Your task to perform on an android device: change the upload size in google photos Image 0: 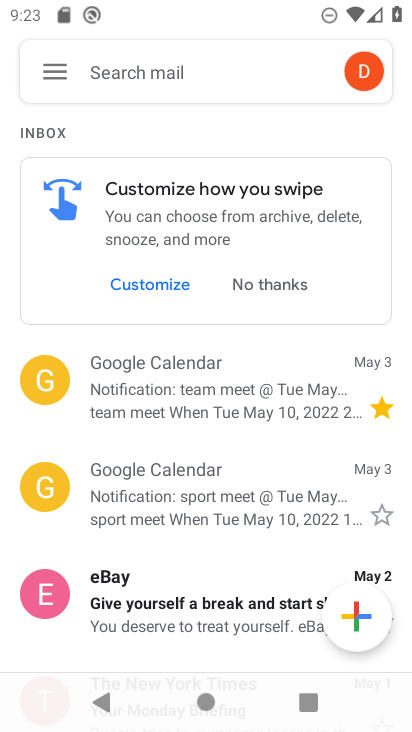
Step 0: press home button
Your task to perform on an android device: change the upload size in google photos Image 1: 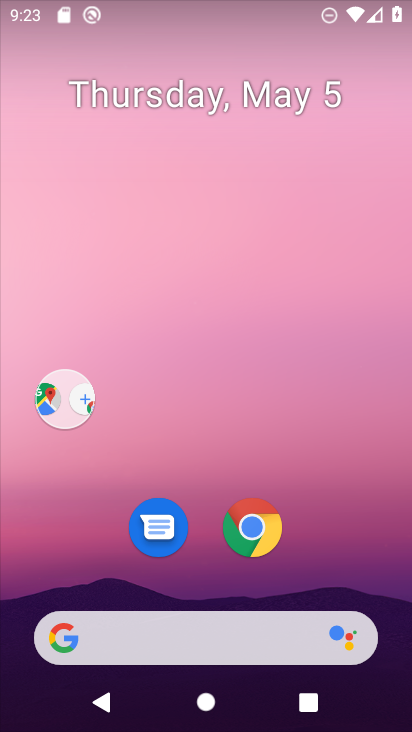
Step 1: drag from (339, 578) to (158, 0)
Your task to perform on an android device: change the upload size in google photos Image 2: 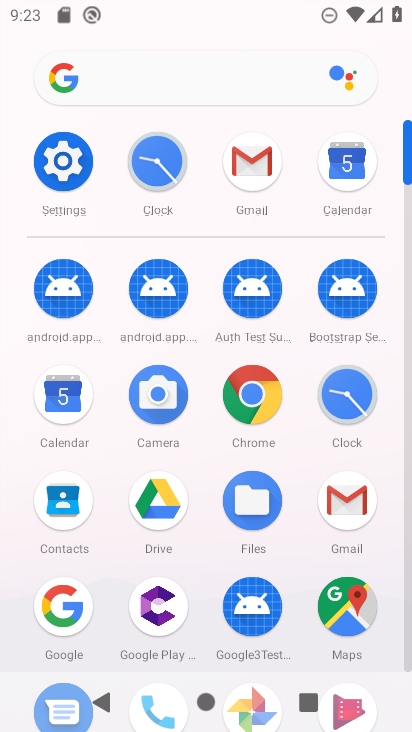
Step 2: click (236, 92)
Your task to perform on an android device: change the upload size in google photos Image 3: 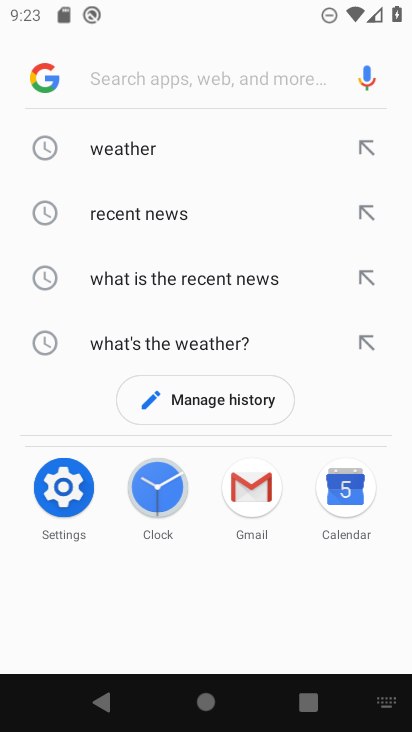
Step 3: drag from (272, 490) to (232, 60)
Your task to perform on an android device: change the upload size in google photos Image 4: 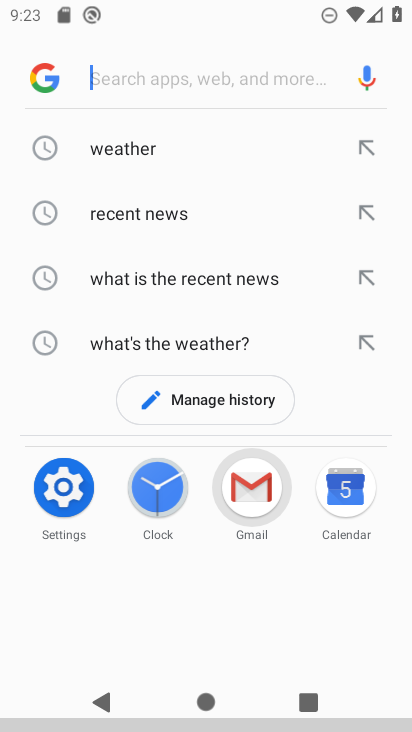
Step 4: drag from (321, 264) to (352, 102)
Your task to perform on an android device: change the upload size in google photos Image 5: 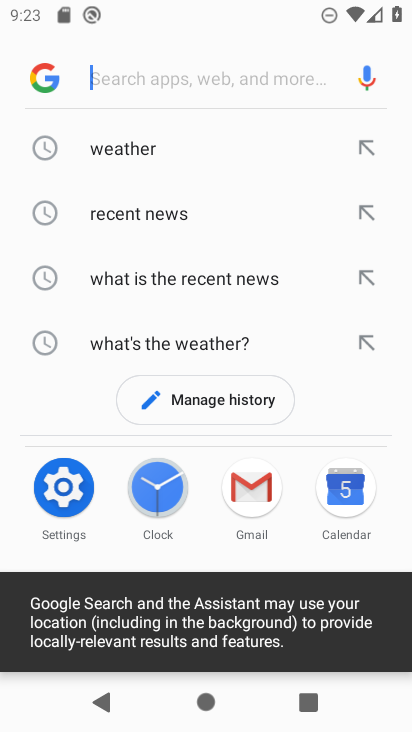
Step 5: click (232, 40)
Your task to perform on an android device: change the upload size in google photos Image 6: 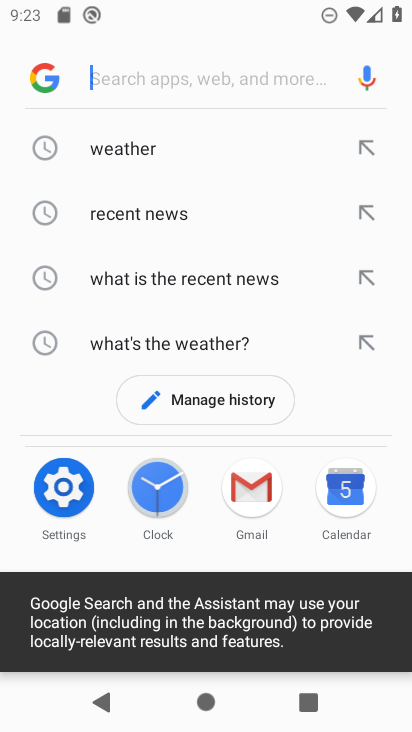
Step 6: press home button
Your task to perform on an android device: change the upload size in google photos Image 7: 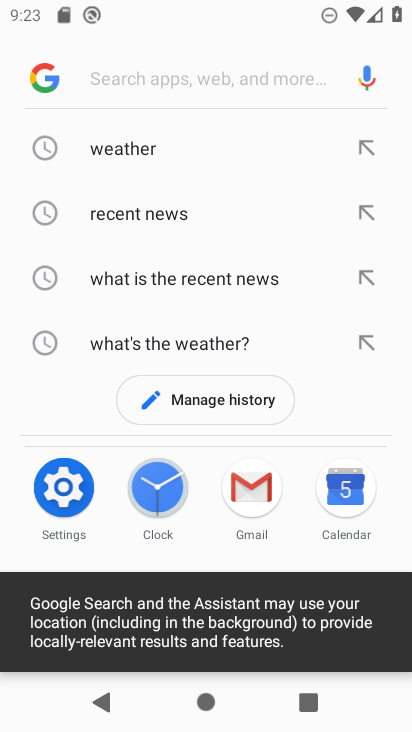
Step 7: press home button
Your task to perform on an android device: change the upload size in google photos Image 8: 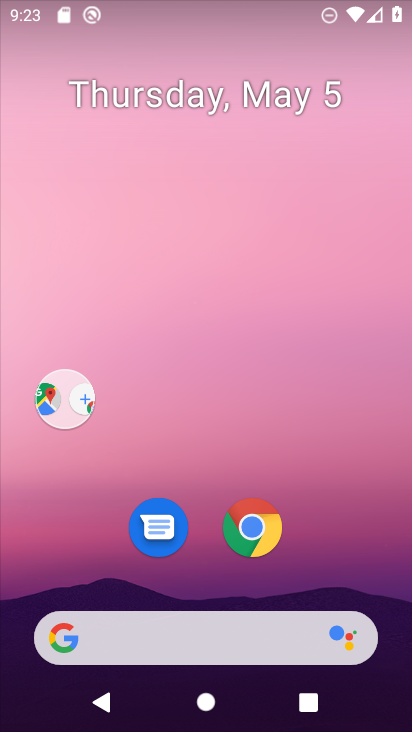
Step 8: press home button
Your task to perform on an android device: change the upload size in google photos Image 9: 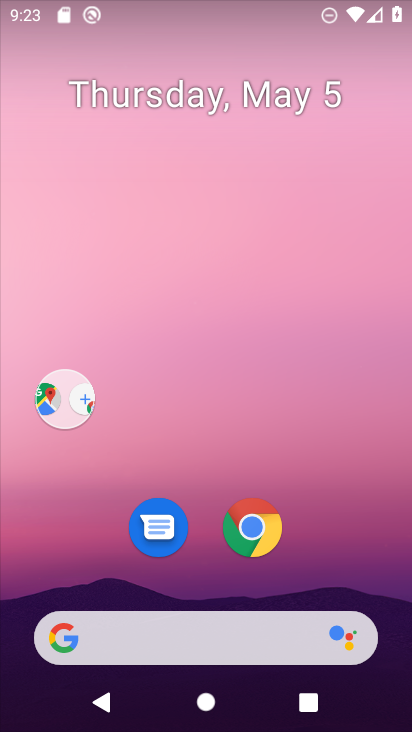
Step 9: press home button
Your task to perform on an android device: change the upload size in google photos Image 10: 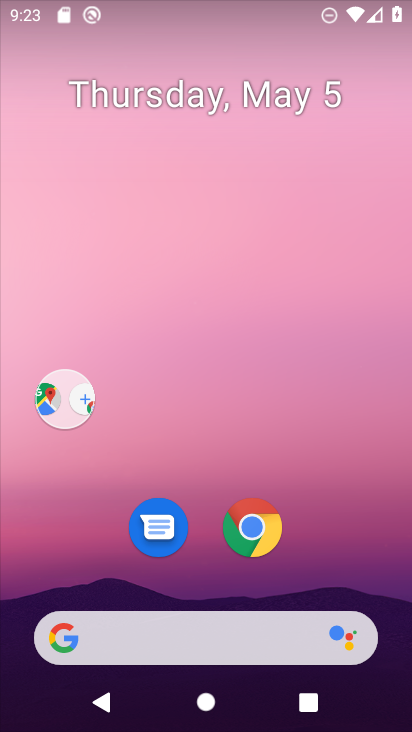
Step 10: drag from (326, 589) to (119, 16)
Your task to perform on an android device: change the upload size in google photos Image 11: 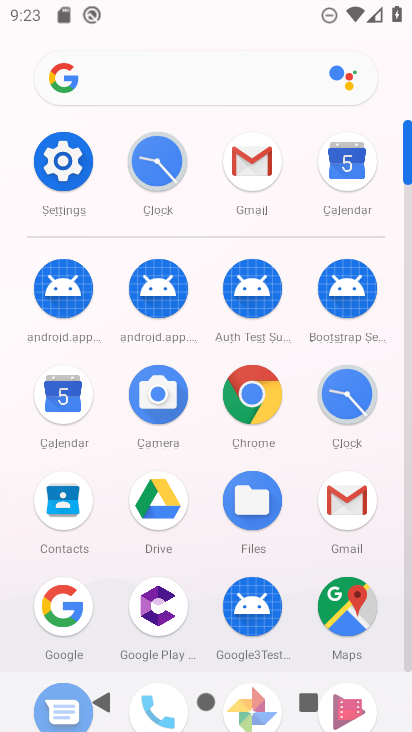
Step 11: drag from (240, 483) to (224, 148)
Your task to perform on an android device: change the upload size in google photos Image 12: 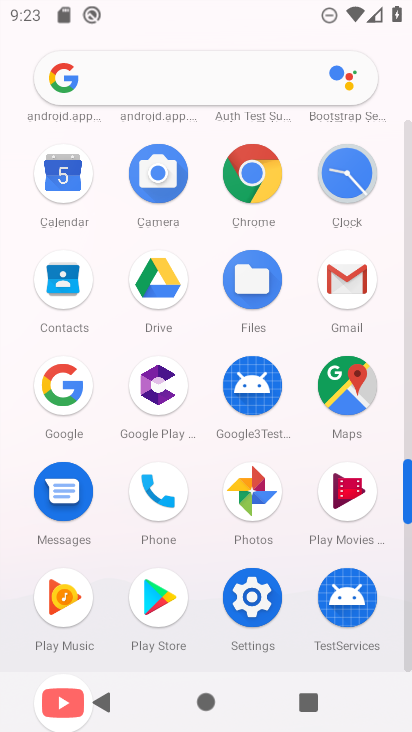
Step 12: click (247, 486)
Your task to perform on an android device: change the upload size in google photos Image 13: 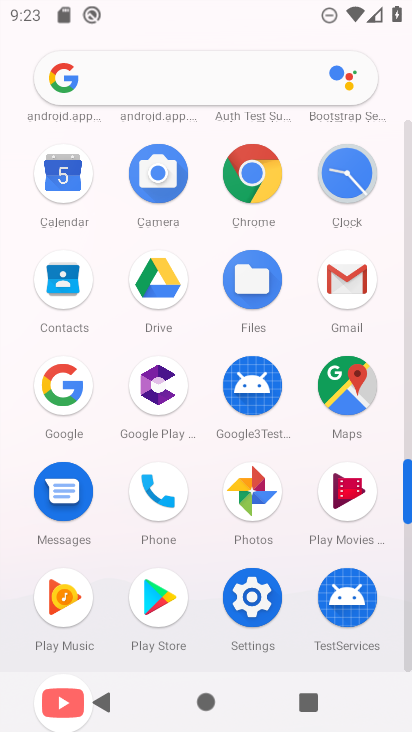
Step 13: click (247, 486)
Your task to perform on an android device: change the upload size in google photos Image 14: 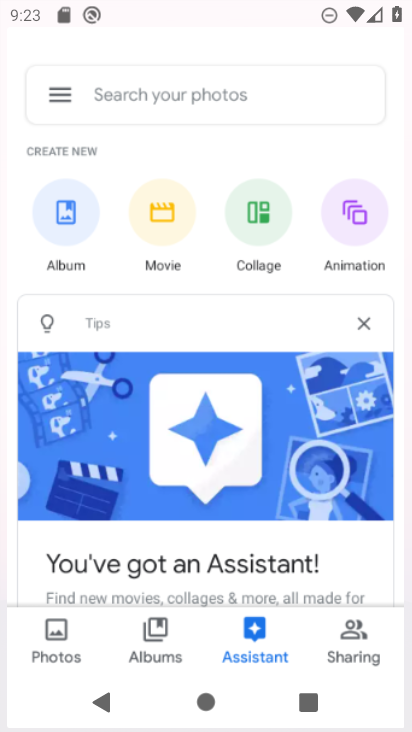
Step 14: click (253, 490)
Your task to perform on an android device: change the upload size in google photos Image 15: 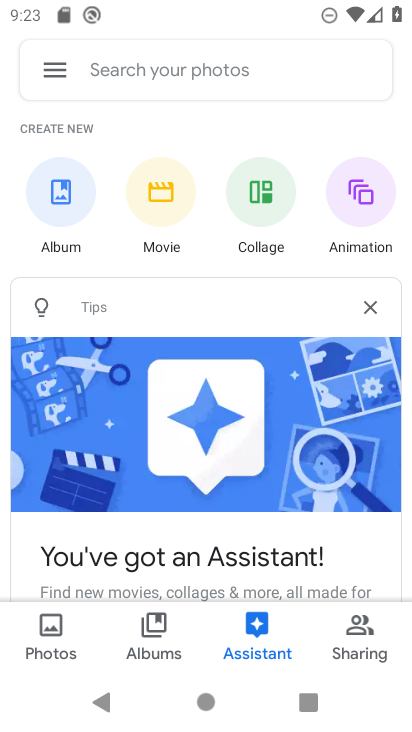
Step 15: click (59, 68)
Your task to perform on an android device: change the upload size in google photos Image 16: 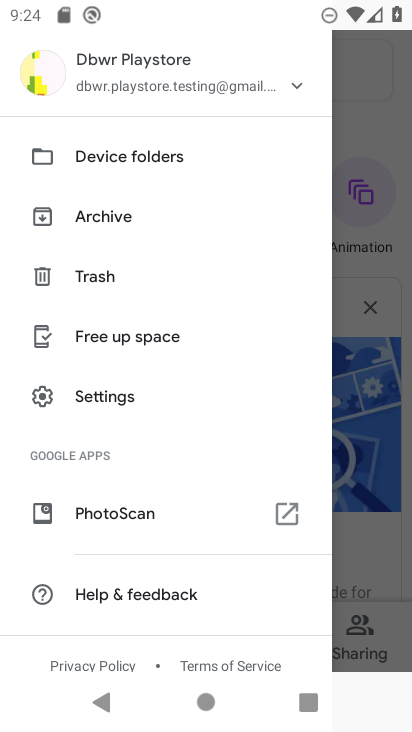
Step 16: drag from (173, 555) to (166, 30)
Your task to perform on an android device: change the upload size in google photos Image 17: 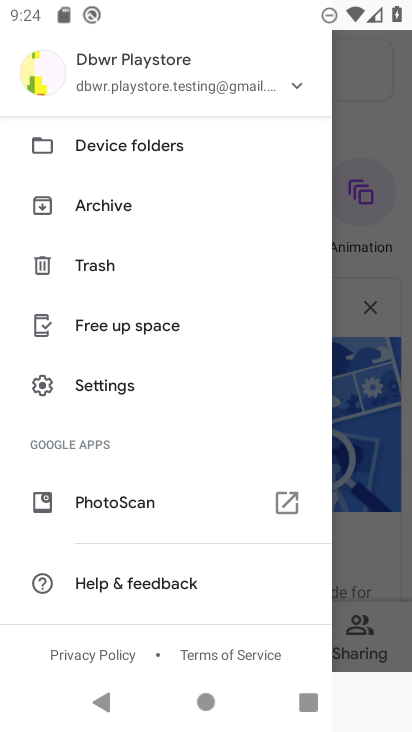
Step 17: drag from (219, 372) to (190, 41)
Your task to perform on an android device: change the upload size in google photos Image 18: 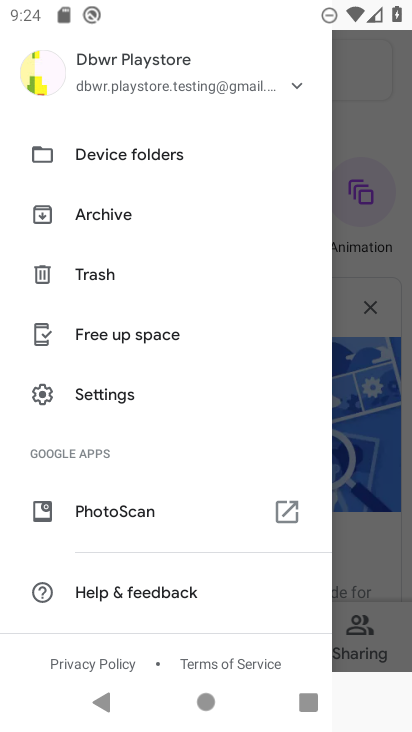
Step 18: drag from (156, 433) to (107, 60)
Your task to perform on an android device: change the upload size in google photos Image 19: 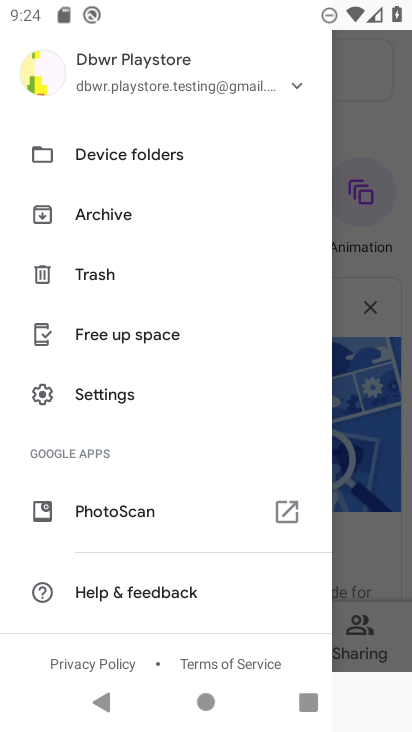
Step 19: drag from (145, 174) to (122, 10)
Your task to perform on an android device: change the upload size in google photos Image 20: 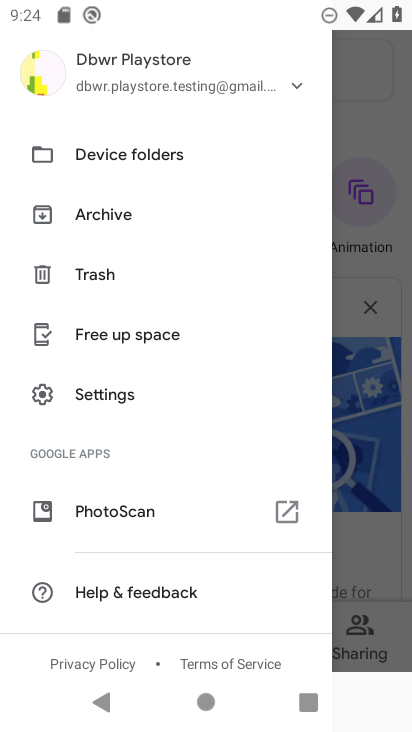
Step 20: drag from (155, 378) to (189, 11)
Your task to perform on an android device: change the upload size in google photos Image 21: 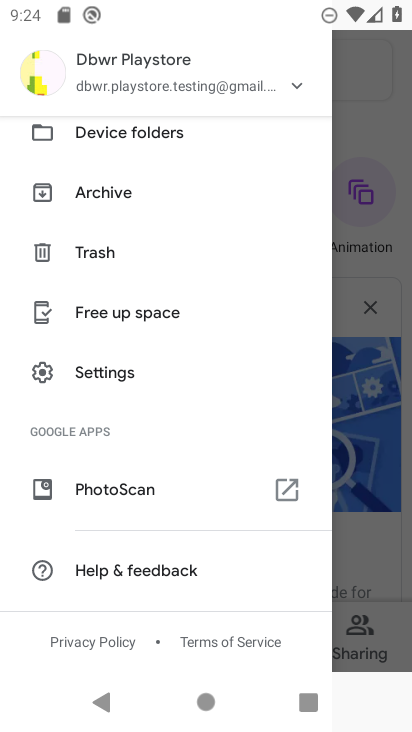
Step 21: click (93, 365)
Your task to perform on an android device: change the upload size in google photos Image 22: 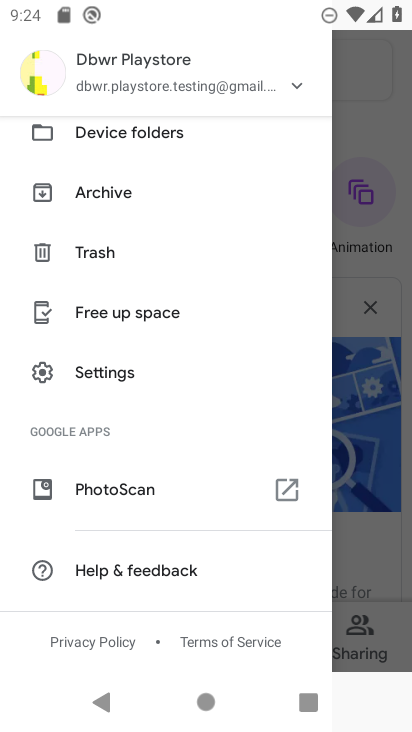
Step 22: click (93, 365)
Your task to perform on an android device: change the upload size in google photos Image 23: 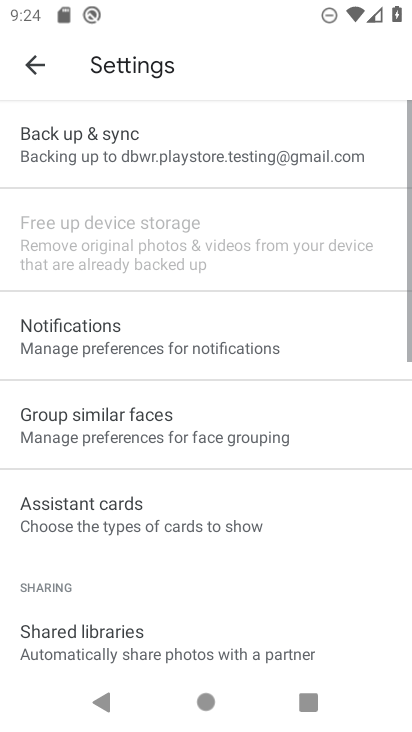
Step 23: click (107, 386)
Your task to perform on an android device: change the upload size in google photos Image 24: 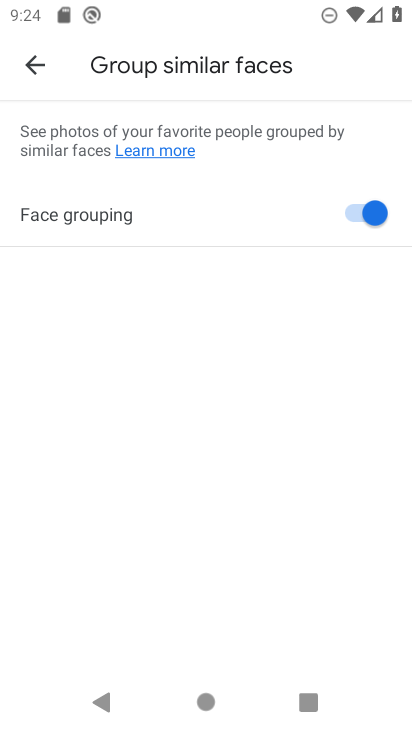
Step 24: click (24, 71)
Your task to perform on an android device: change the upload size in google photos Image 25: 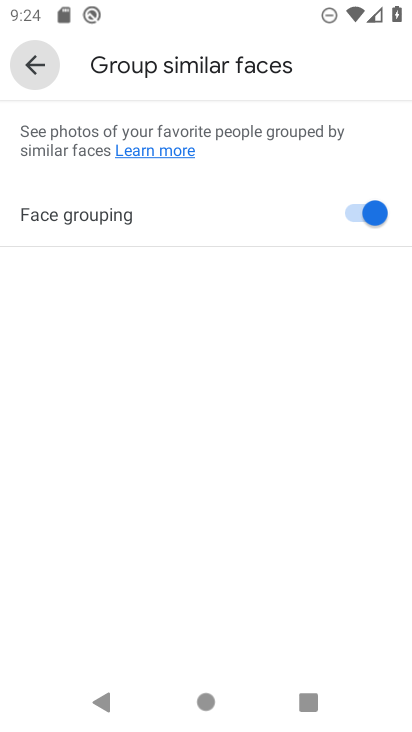
Step 25: click (26, 72)
Your task to perform on an android device: change the upload size in google photos Image 26: 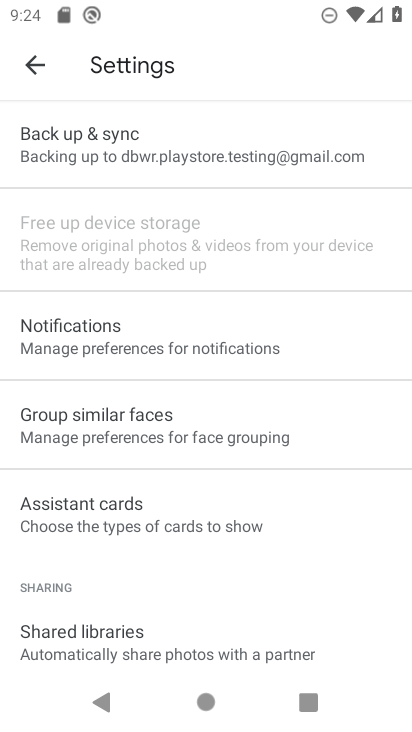
Step 26: click (81, 154)
Your task to perform on an android device: change the upload size in google photos Image 27: 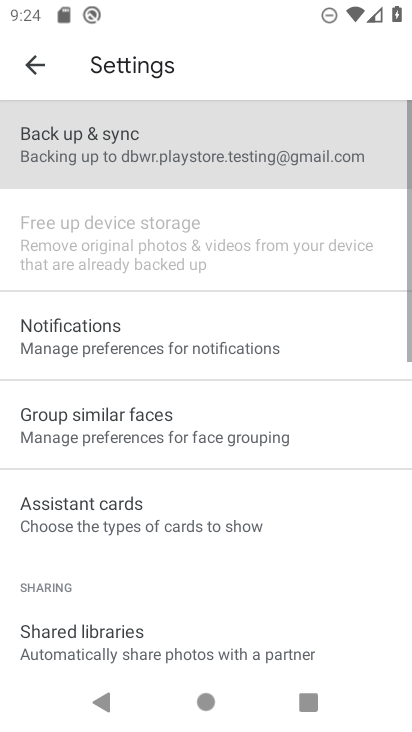
Step 27: click (81, 154)
Your task to perform on an android device: change the upload size in google photos Image 28: 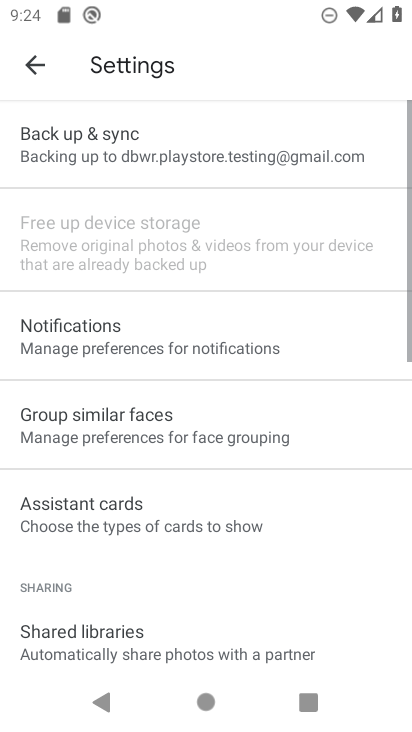
Step 28: click (81, 153)
Your task to perform on an android device: change the upload size in google photos Image 29: 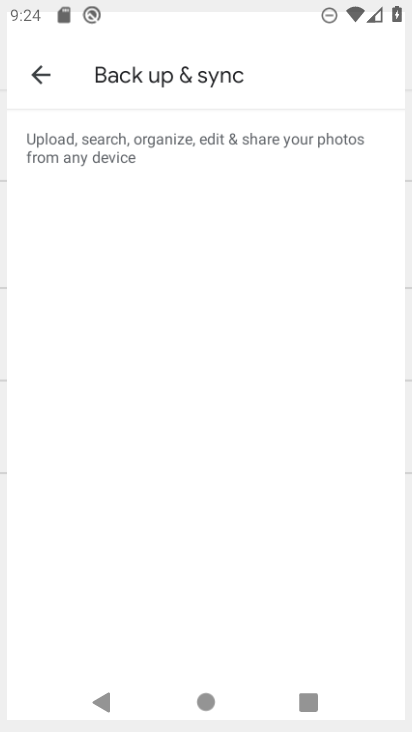
Step 29: click (81, 153)
Your task to perform on an android device: change the upload size in google photos Image 30: 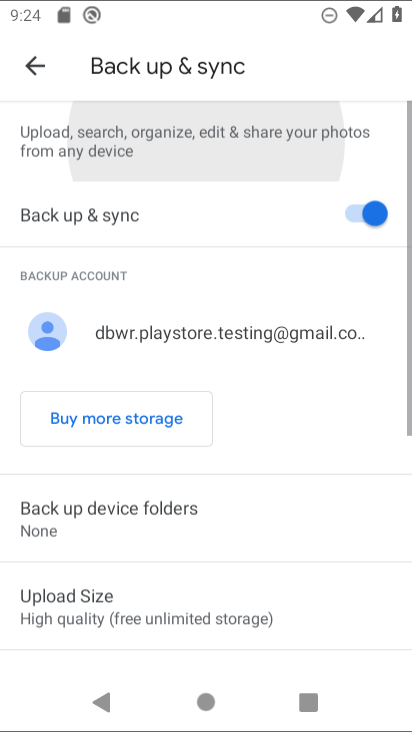
Step 30: click (82, 151)
Your task to perform on an android device: change the upload size in google photos Image 31: 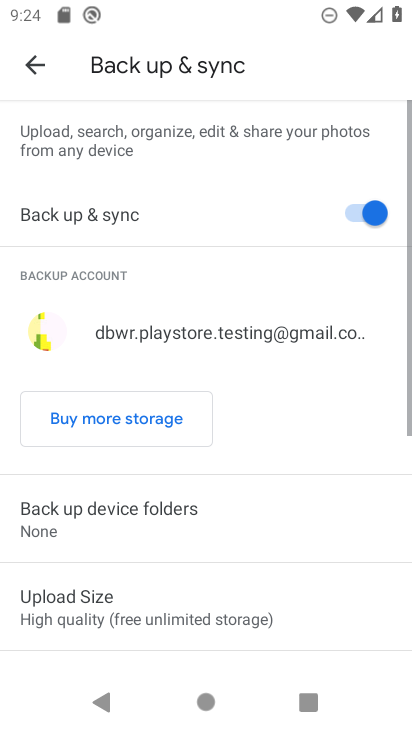
Step 31: click (84, 150)
Your task to perform on an android device: change the upload size in google photos Image 32: 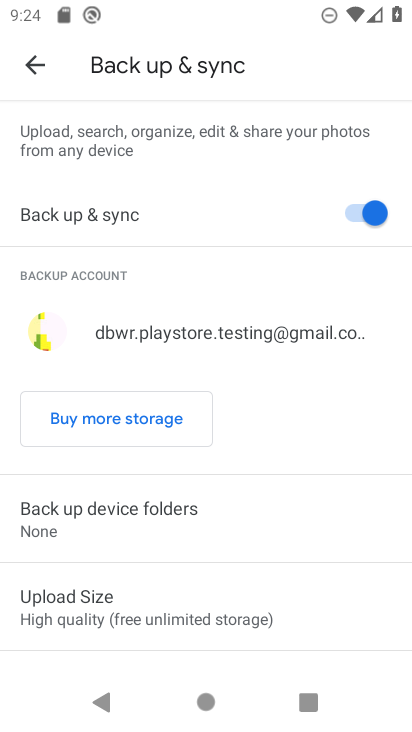
Step 32: click (122, 160)
Your task to perform on an android device: change the upload size in google photos Image 33: 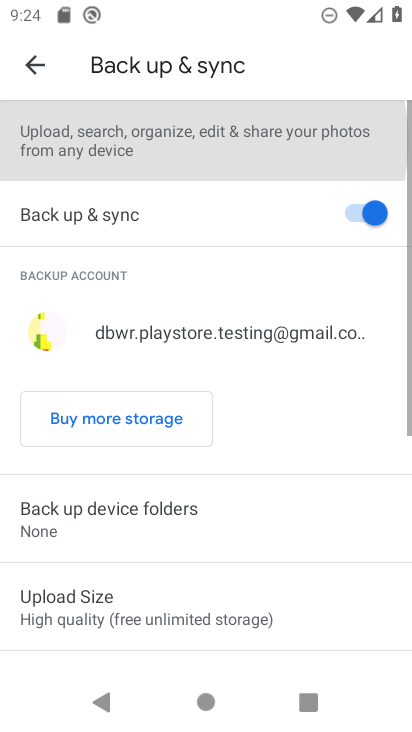
Step 33: click (115, 148)
Your task to perform on an android device: change the upload size in google photos Image 34: 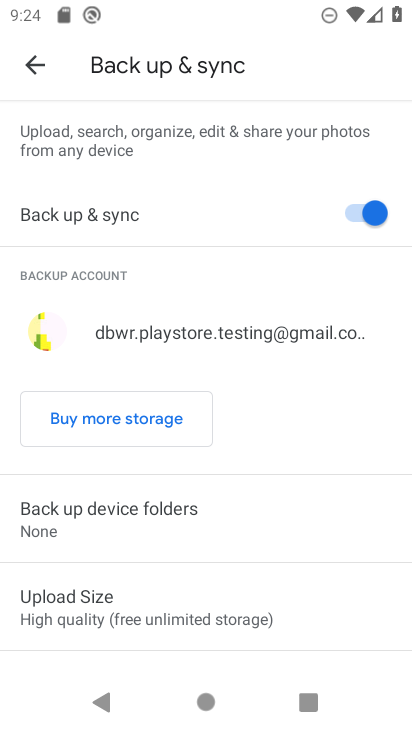
Step 34: click (89, 603)
Your task to perform on an android device: change the upload size in google photos Image 35: 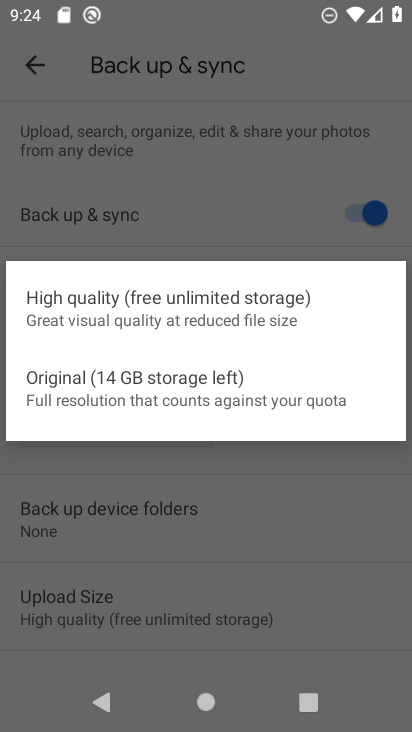
Step 35: click (178, 312)
Your task to perform on an android device: change the upload size in google photos Image 36: 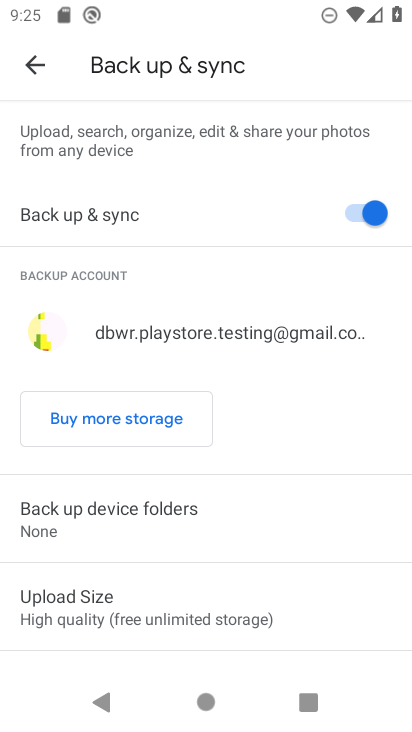
Step 36: task complete